Your task to perform on an android device: Go to location settings Image 0: 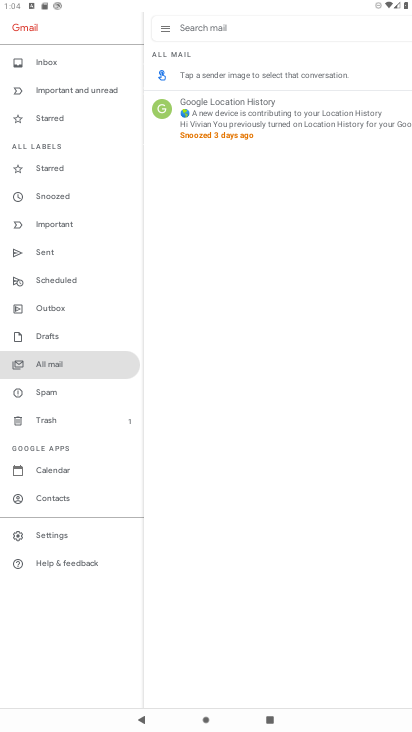
Step 0: press home button
Your task to perform on an android device: Go to location settings Image 1: 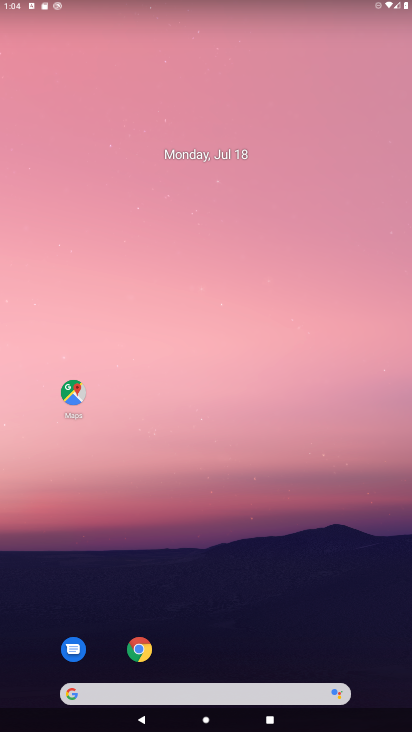
Step 1: drag from (367, 659) to (319, 125)
Your task to perform on an android device: Go to location settings Image 2: 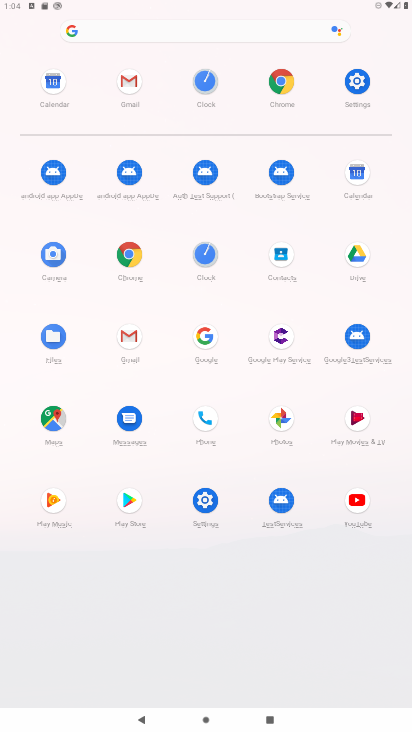
Step 2: click (202, 499)
Your task to perform on an android device: Go to location settings Image 3: 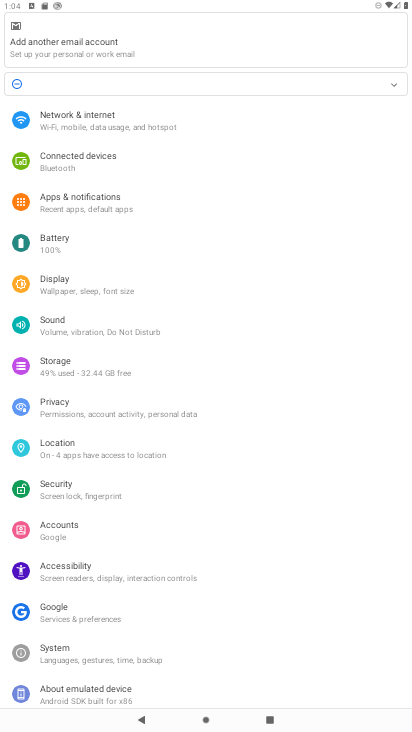
Step 3: click (53, 442)
Your task to perform on an android device: Go to location settings Image 4: 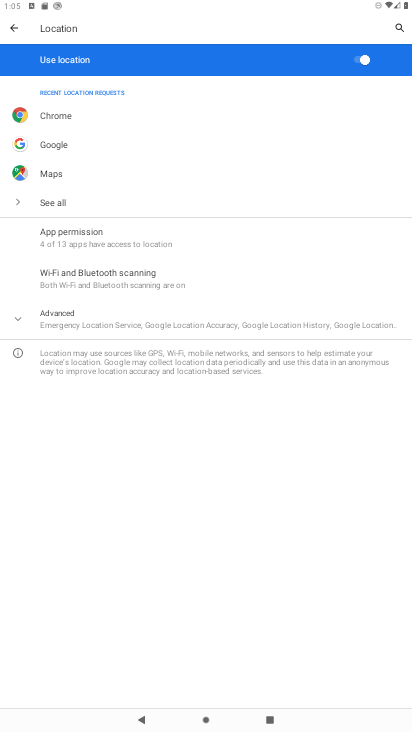
Step 4: task complete